Your task to perform on an android device: open a bookmark in the chrome app Image 0: 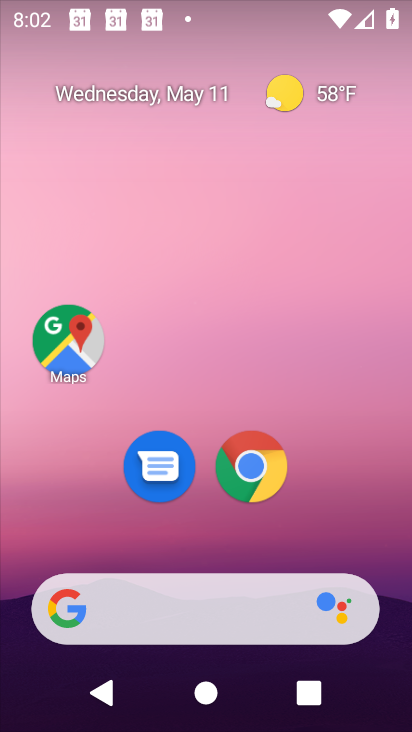
Step 0: click (253, 471)
Your task to perform on an android device: open a bookmark in the chrome app Image 1: 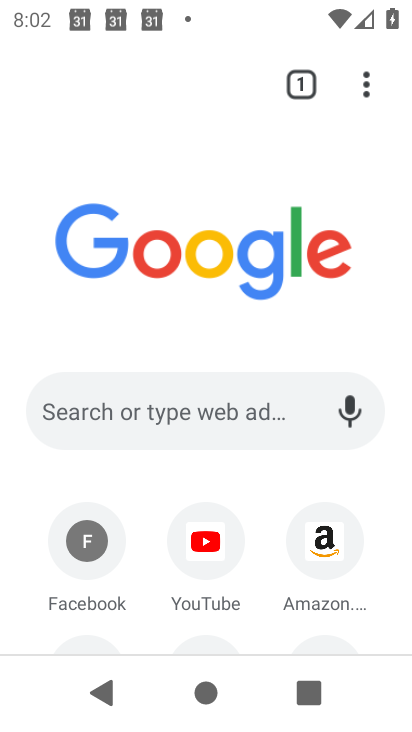
Step 1: click (363, 94)
Your task to perform on an android device: open a bookmark in the chrome app Image 2: 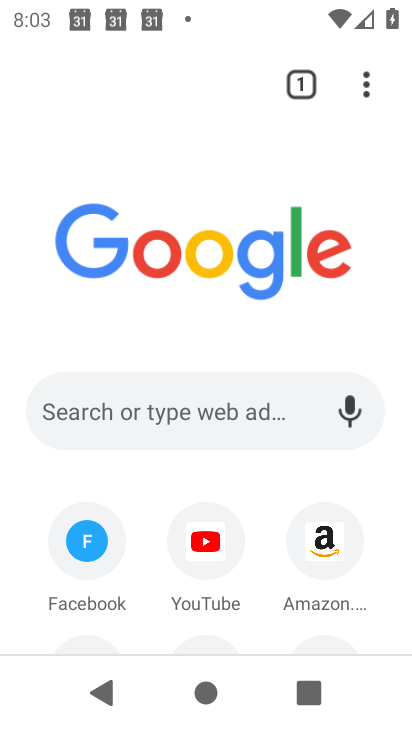
Step 2: click (361, 84)
Your task to perform on an android device: open a bookmark in the chrome app Image 3: 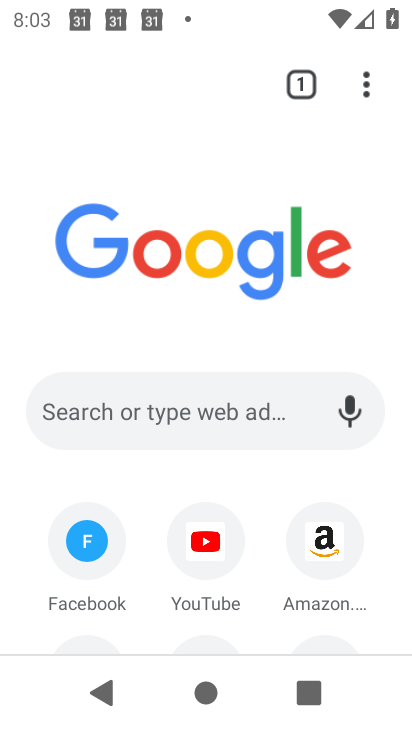
Step 3: click (363, 87)
Your task to perform on an android device: open a bookmark in the chrome app Image 4: 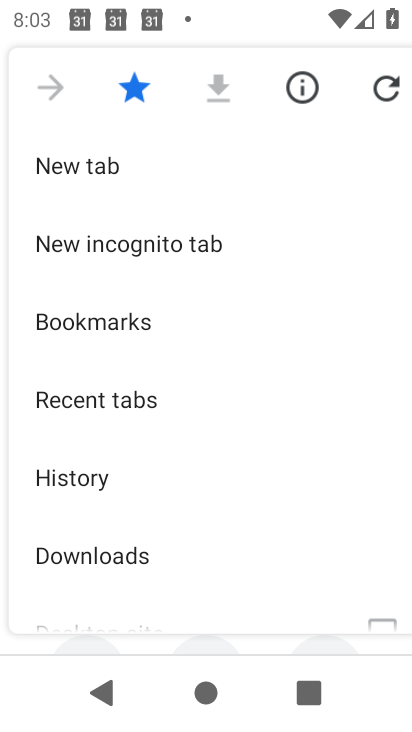
Step 4: drag from (171, 489) to (178, 207)
Your task to perform on an android device: open a bookmark in the chrome app Image 5: 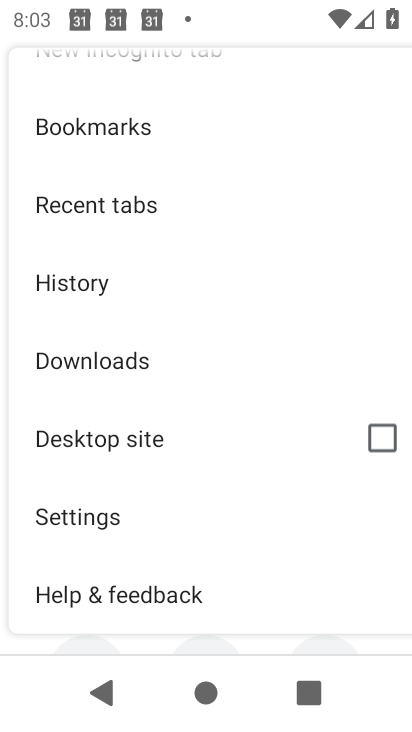
Step 5: click (173, 137)
Your task to perform on an android device: open a bookmark in the chrome app Image 6: 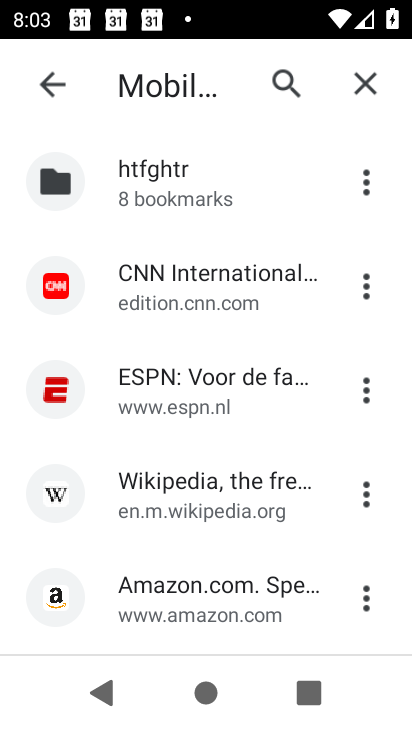
Step 6: click (165, 299)
Your task to perform on an android device: open a bookmark in the chrome app Image 7: 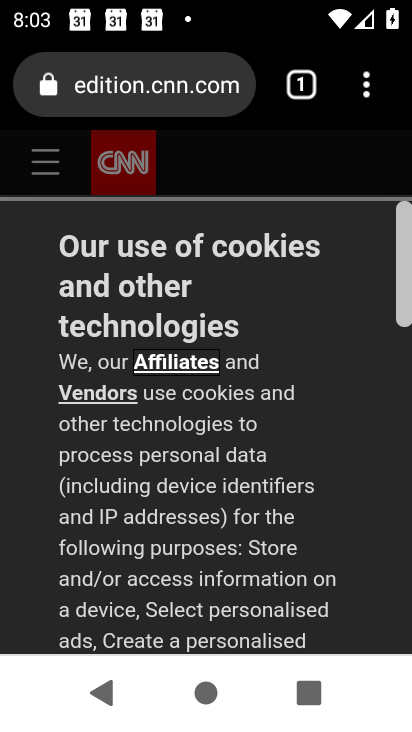
Step 7: task complete